Your task to perform on an android device: turn off improve location accuracy Image 0: 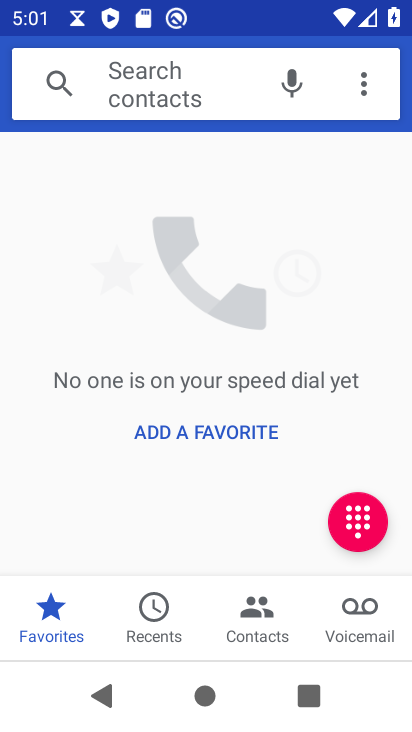
Step 0: press home button
Your task to perform on an android device: turn off improve location accuracy Image 1: 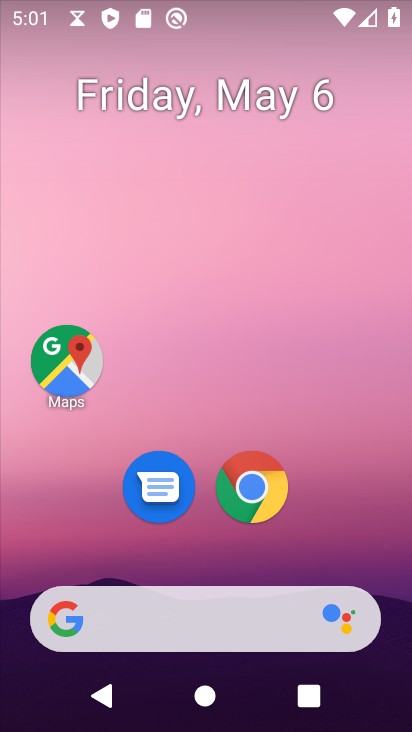
Step 1: drag from (328, 536) to (299, 7)
Your task to perform on an android device: turn off improve location accuracy Image 2: 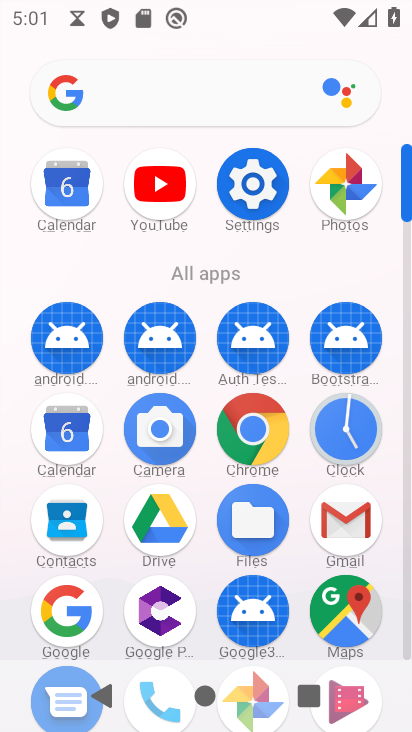
Step 2: click (251, 182)
Your task to perform on an android device: turn off improve location accuracy Image 3: 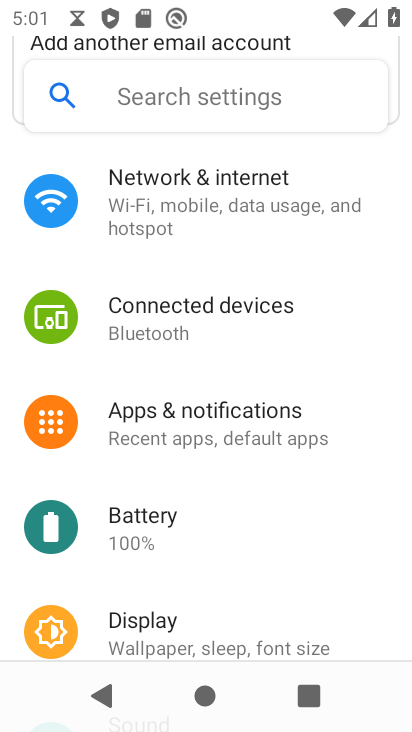
Step 3: drag from (230, 527) to (267, 409)
Your task to perform on an android device: turn off improve location accuracy Image 4: 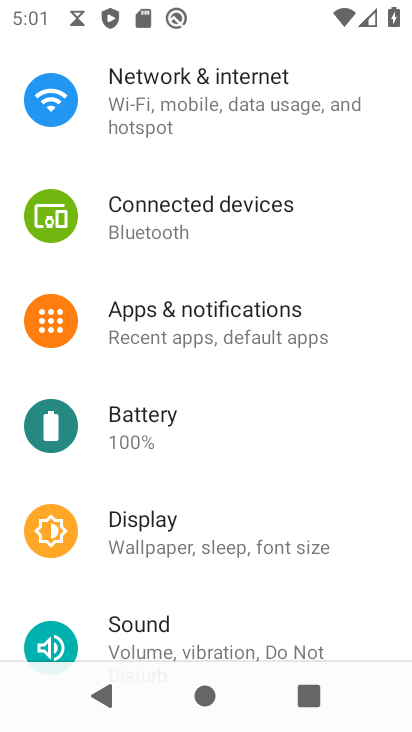
Step 4: drag from (202, 581) to (273, 463)
Your task to perform on an android device: turn off improve location accuracy Image 5: 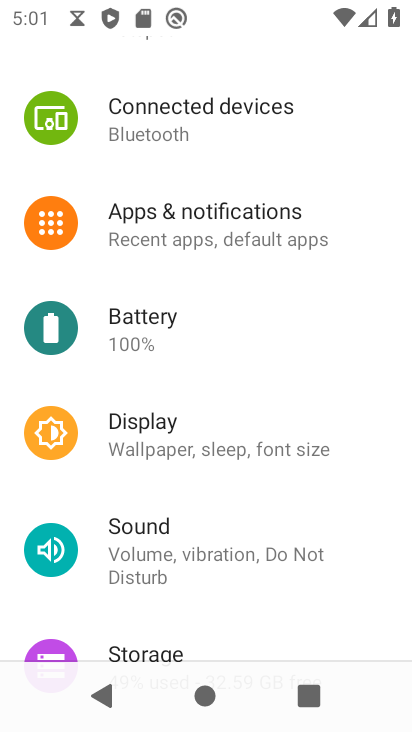
Step 5: drag from (214, 603) to (267, 424)
Your task to perform on an android device: turn off improve location accuracy Image 6: 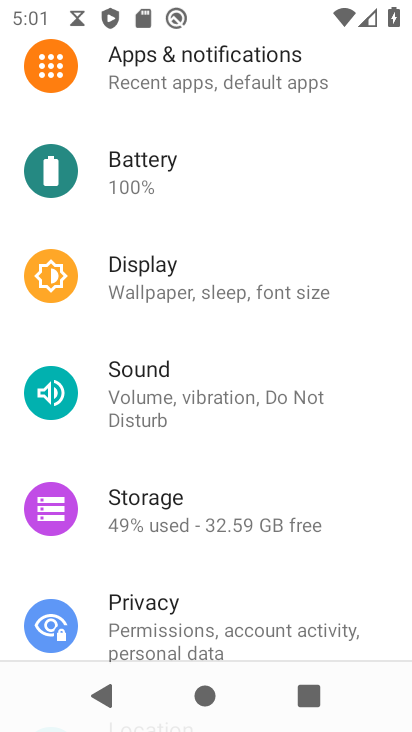
Step 6: drag from (198, 570) to (265, 428)
Your task to perform on an android device: turn off improve location accuracy Image 7: 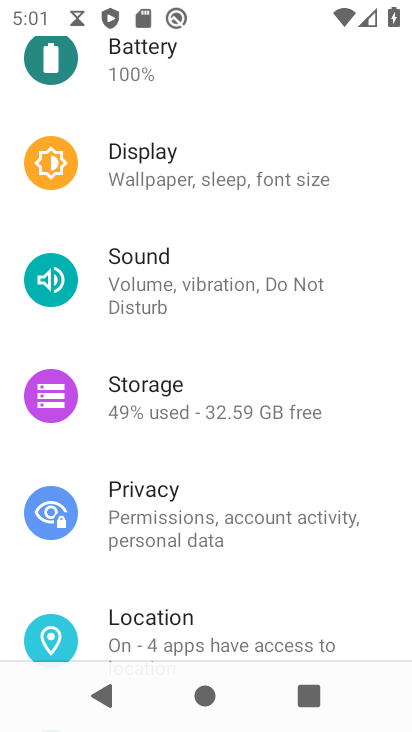
Step 7: drag from (246, 590) to (280, 427)
Your task to perform on an android device: turn off improve location accuracy Image 8: 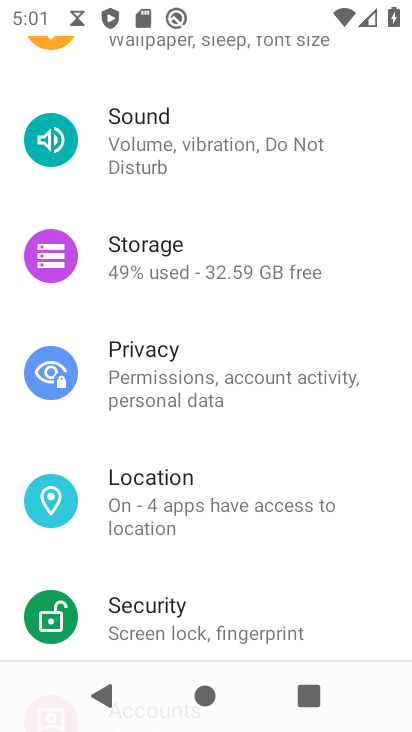
Step 8: drag from (216, 580) to (295, 420)
Your task to perform on an android device: turn off improve location accuracy Image 9: 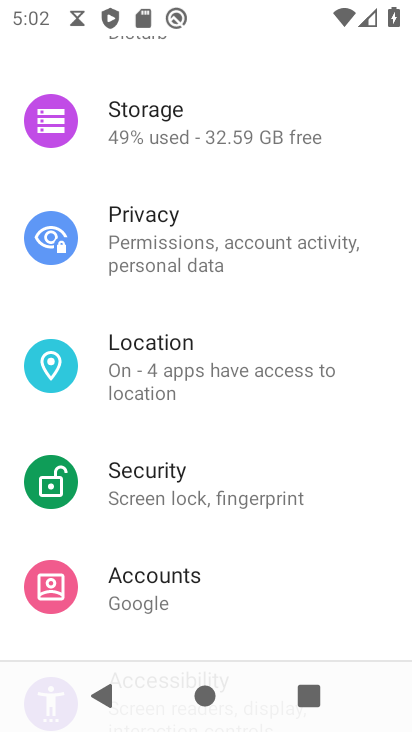
Step 9: click (234, 368)
Your task to perform on an android device: turn off improve location accuracy Image 10: 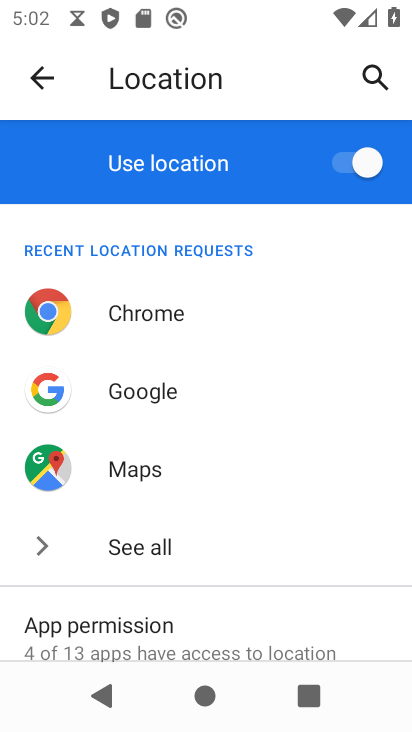
Step 10: drag from (188, 555) to (234, 422)
Your task to perform on an android device: turn off improve location accuracy Image 11: 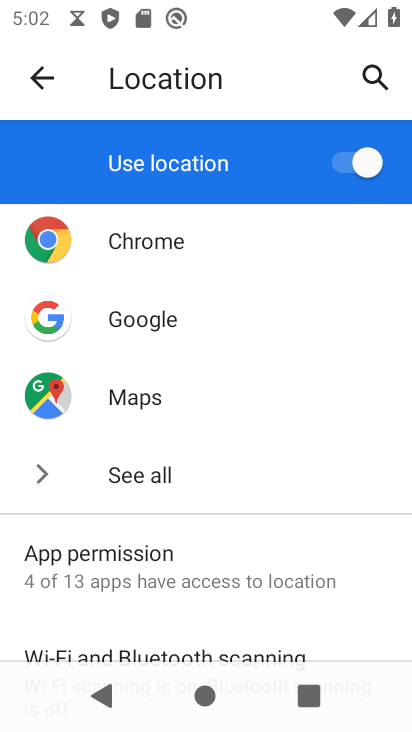
Step 11: drag from (209, 542) to (246, 412)
Your task to perform on an android device: turn off improve location accuracy Image 12: 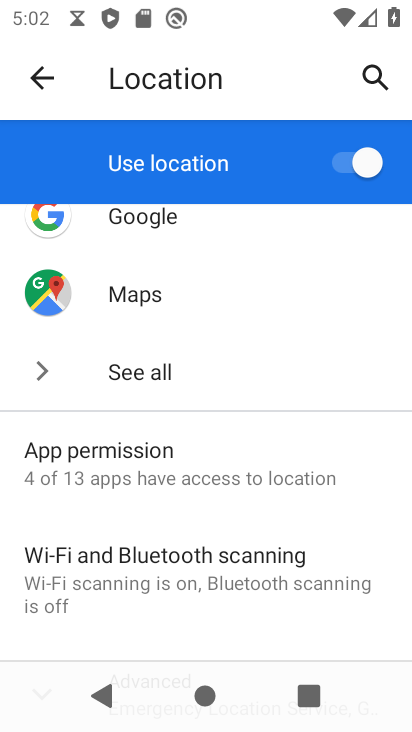
Step 12: drag from (211, 521) to (233, 351)
Your task to perform on an android device: turn off improve location accuracy Image 13: 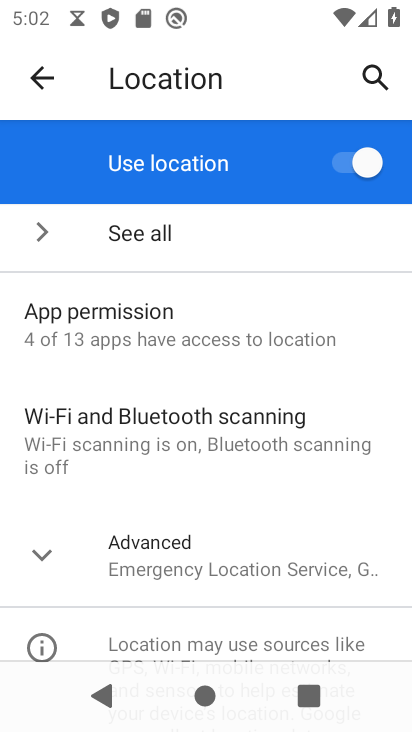
Step 13: click (187, 546)
Your task to perform on an android device: turn off improve location accuracy Image 14: 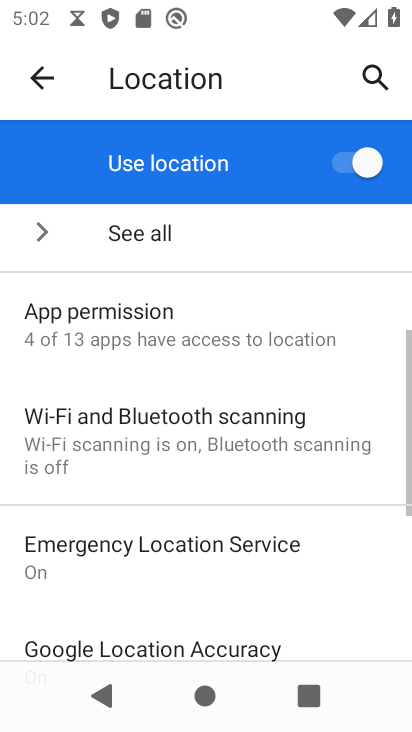
Step 14: drag from (184, 611) to (254, 442)
Your task to perform on an android device: turn off improve location accuracy Image 15: 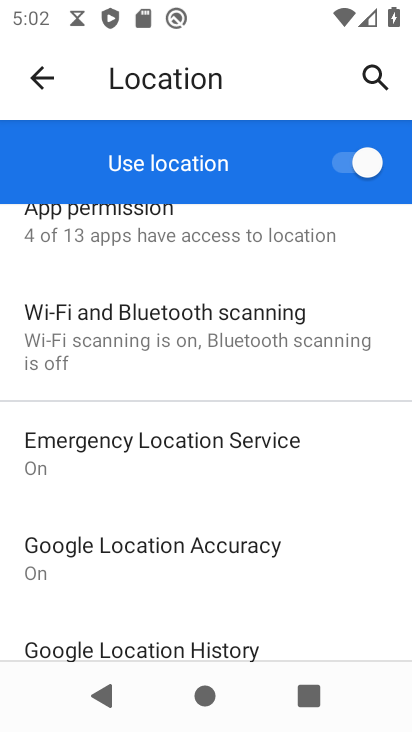
Step 15: click (197, 550)
Your task to perform on an android device: turn off improve location accuracy Image 16: 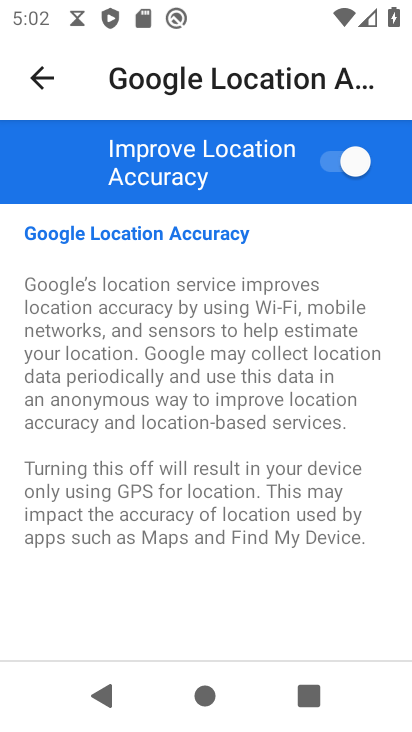
Step 16: click (338, 169)
Your task to perform on an android device: turn off improve location accuracy Image 17: 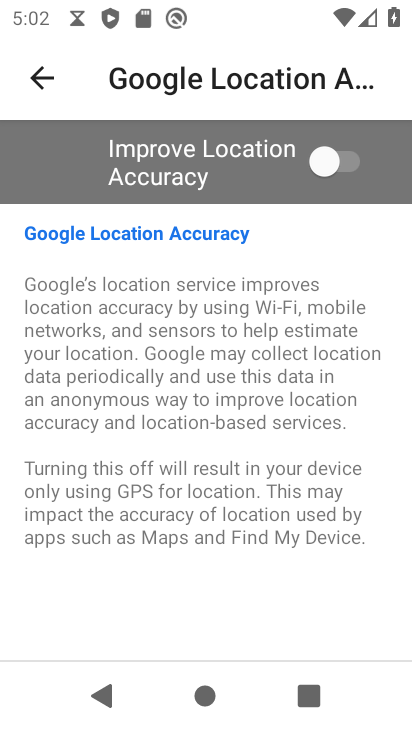
Step 17: task complete